Your task to perform on an android device: turn on the 24-hour format for clock Image 0: 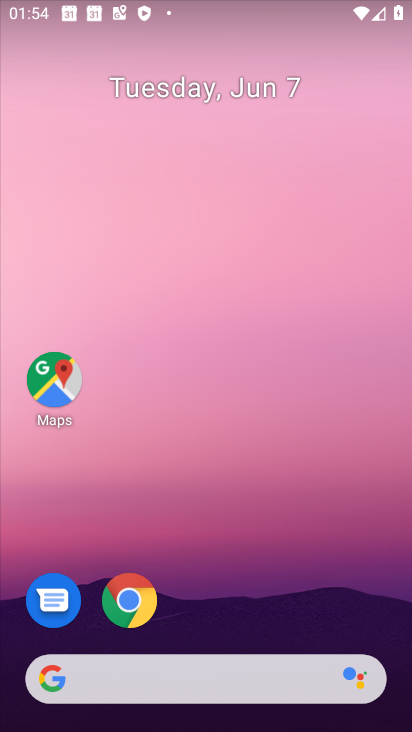
Step 0: drag from (192, 727) to (181, 24)
Your task to perform on an android device: turn on the 24-hour format for clock Image 1: 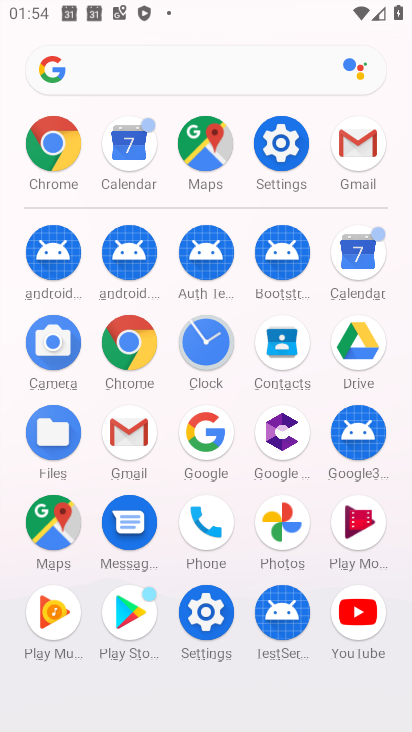
Step 1: click (213, 340)
Your task to perform on an android device: turn on the 24-hour format for clock Image 2: 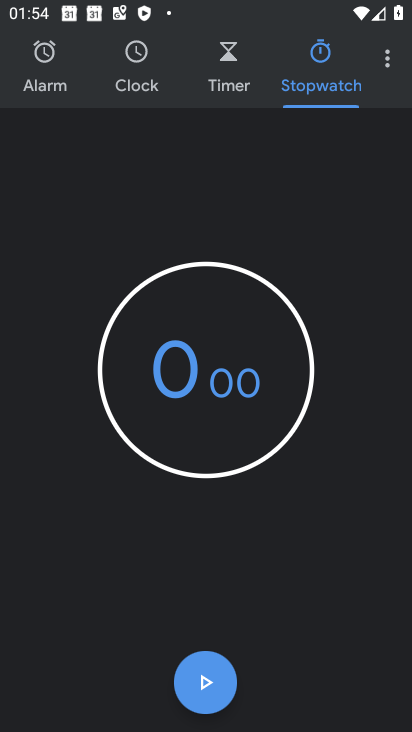
Step 2: click (390, 64)
Your task to perform on an android device: turn on the 24-hour format for clock Image 3: 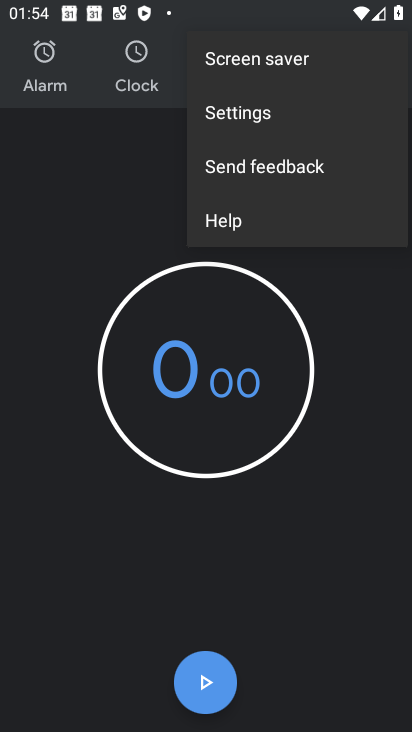
Step 3: click (225, 109)
Your task to perform on an android device: turn on the 24-hour format for clock Image 4: 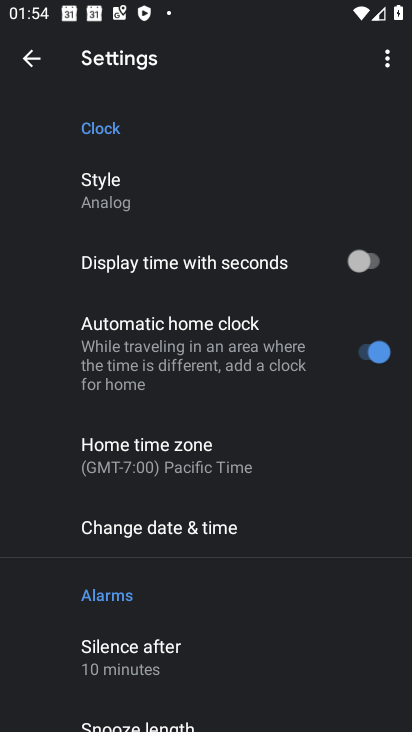
Step 4: click (141, 528)
Your task to perform on an android device: turn on the 24-hour format for clock Image 5: 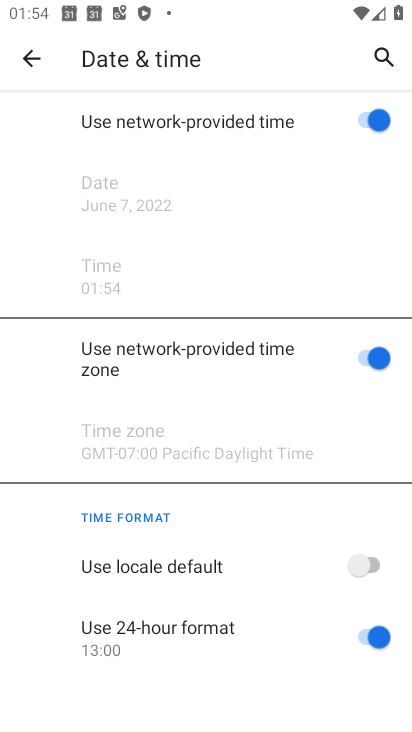
Step 5: task complete